Your task to perform on an android device: Open the calendar and show me this week's events? Image 0: 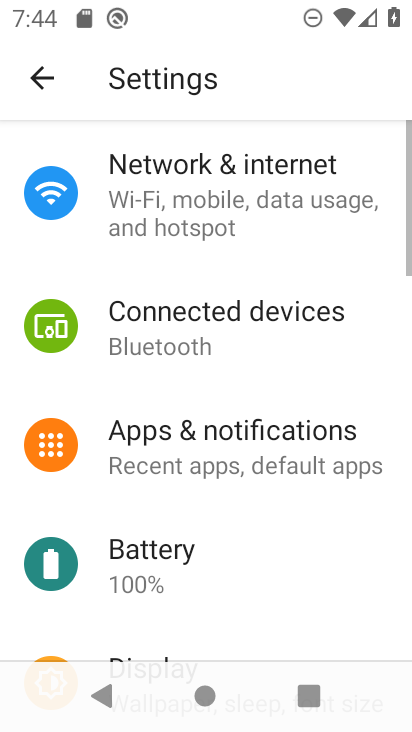
Step 0: press home button
Your task to perform on an android device: Open the calendar and show me this week's events? Image 1: 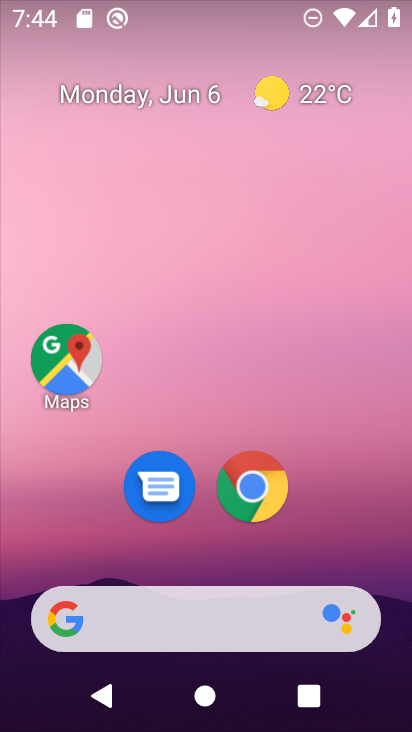
Step 1: drag from (397, 637) to (281, 61)
Your task to perform on an android device: Open the calendar and show me this week's events? Image 2: 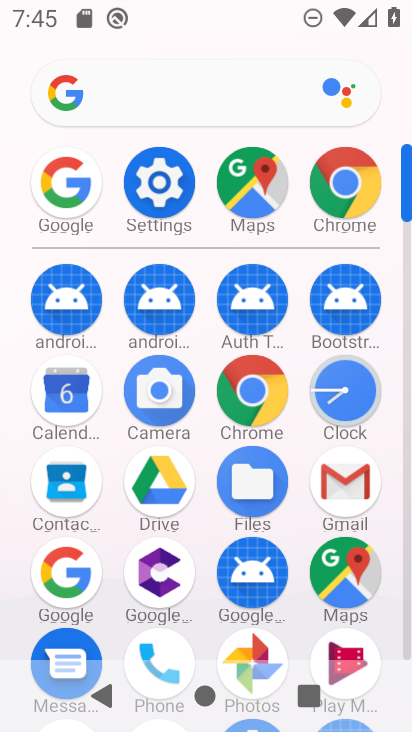
Step 2: click (81, 394)
Your task to perform on an android device: Open the calendar and show me this week's events? Image 3: 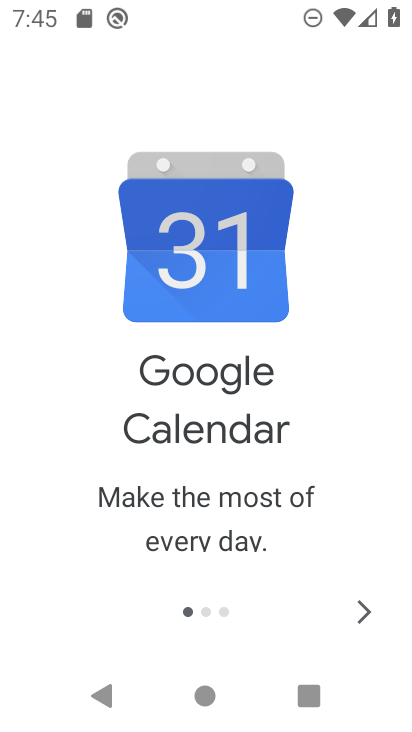
Step 3: click (366, 609)
Your task to perform on an android device: Open the calendar and show me this week's events? Image 4: 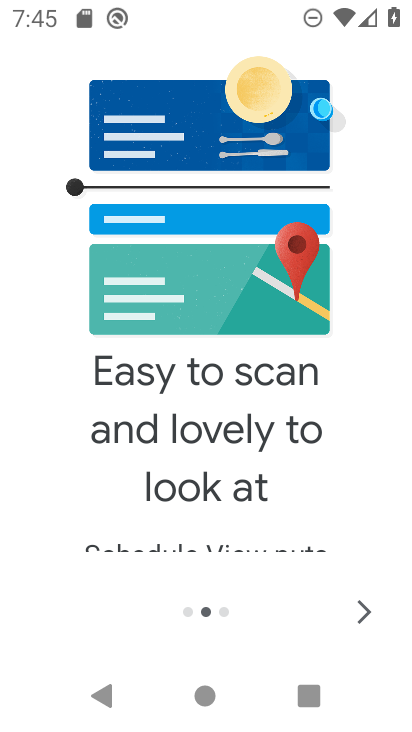
Step 4: click (366, 609)
Your task to perform on an android device: Open the calendar and show me this week's events? Image 5: 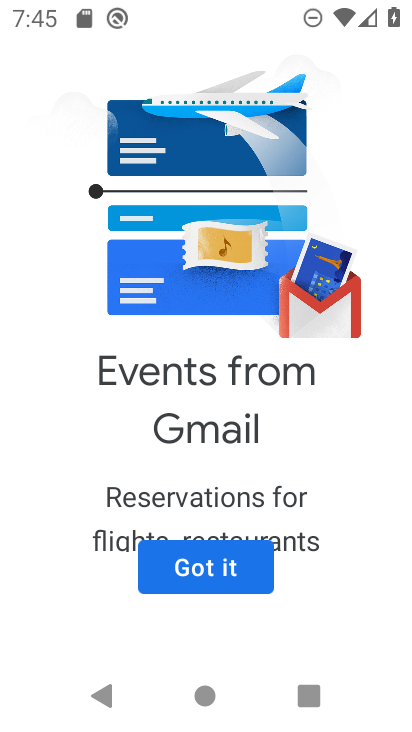
Step 5: click (221, 558)
Your task to perform on an android device: Open the calendar and show me this week's events? Image 6: 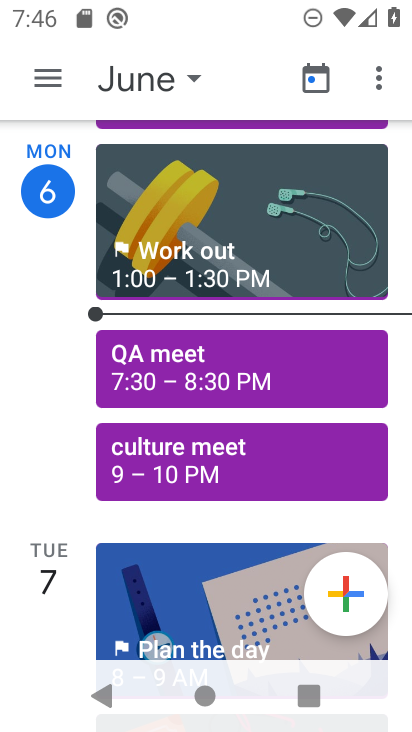
Step 6: task complete